Your task to perform on an android device: Go to settings Image 0: 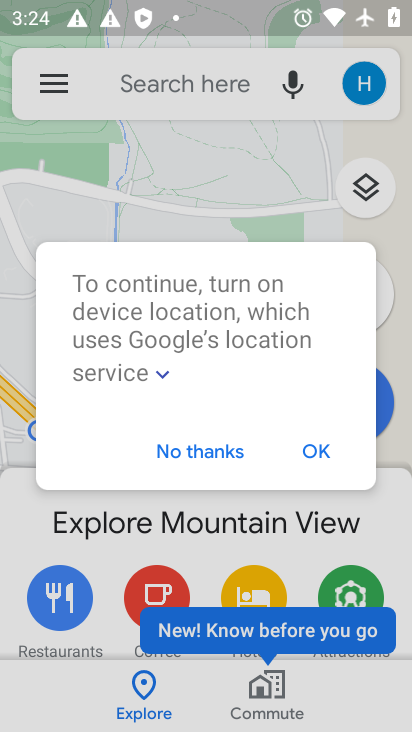
Step 0: press home button
Your task to perform on an android device: Go to settings Image 1: 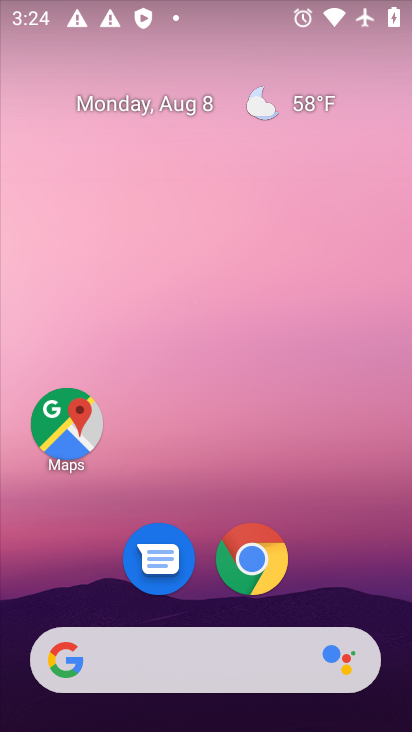
Step 1: drag from (201, 655) to (298, 182)
Your task to perform on an android device: Go to settings Image 2: 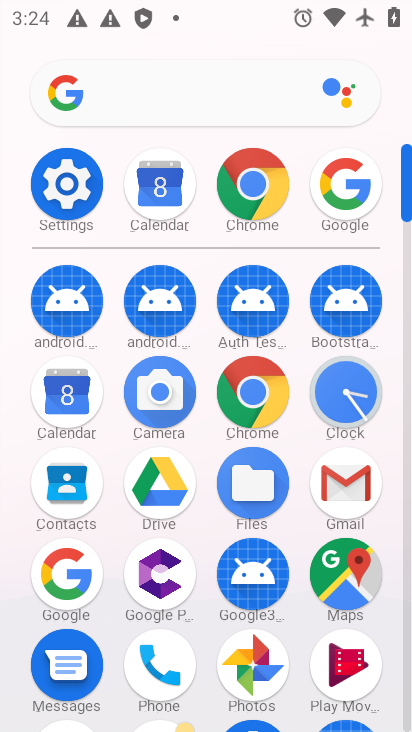
Step 2: click (66, 184)
Your task to perform on an android device: Go to settings Image 3: 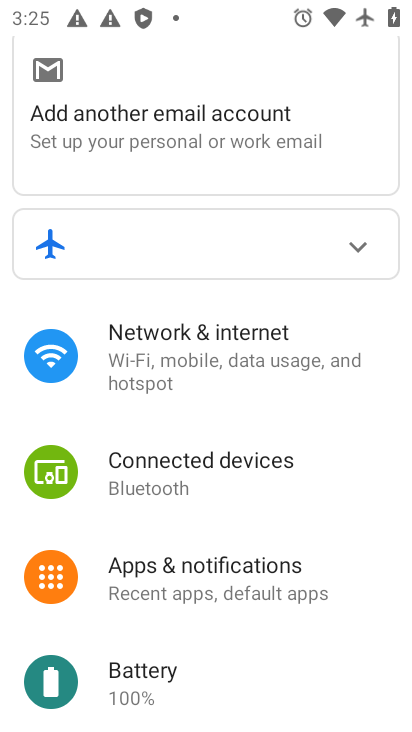
Step 3: task complete